Your task to perform on an android device: Open settings on Google Maps Image 0: 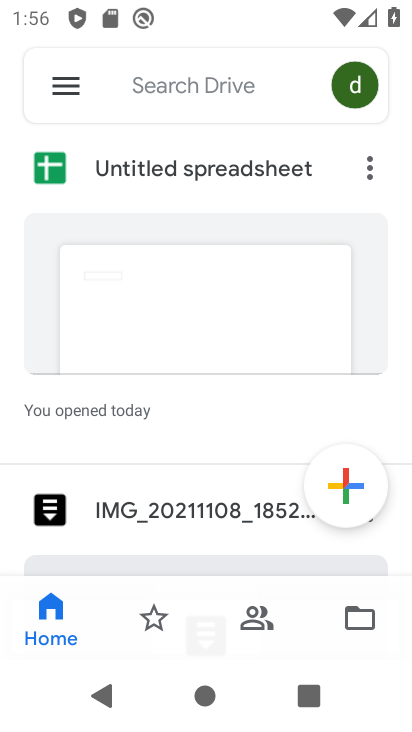
Step 0: press home button
Your task to perform on an android device: Open settings on Google Maps Image 1: 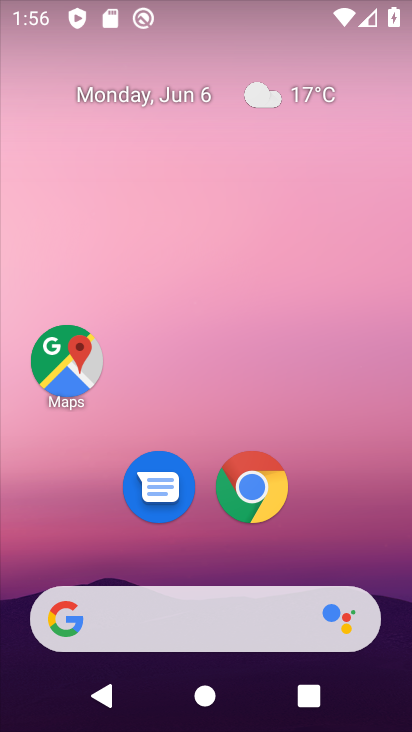
Step 1: drag from (283, 545) to (392, 145)
Your task to perform on an android device: Open settings on Google Maps Image 2: 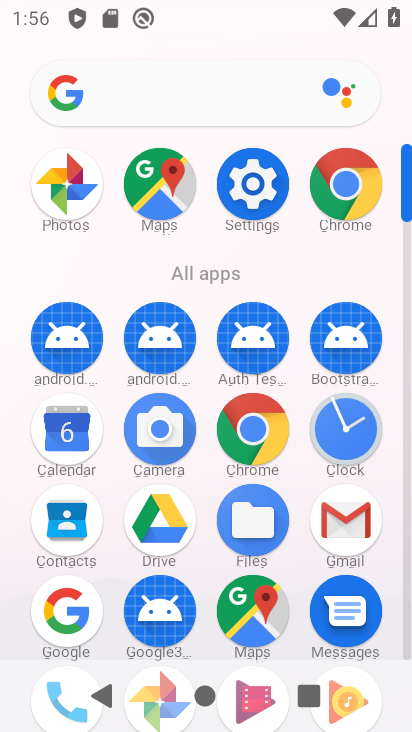
Step 2: click (252, 616)
Your task to perform on an android device: Open settings on Google Maps Image 3: 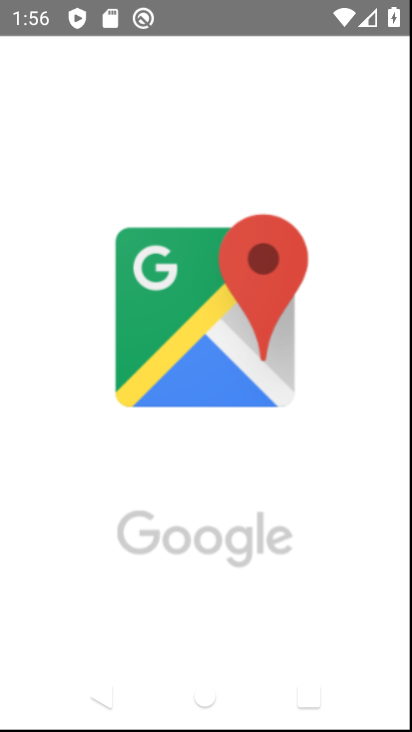
Step 3: task complete